Your task to perform on an android device: Go to accessibility settings Image 0: 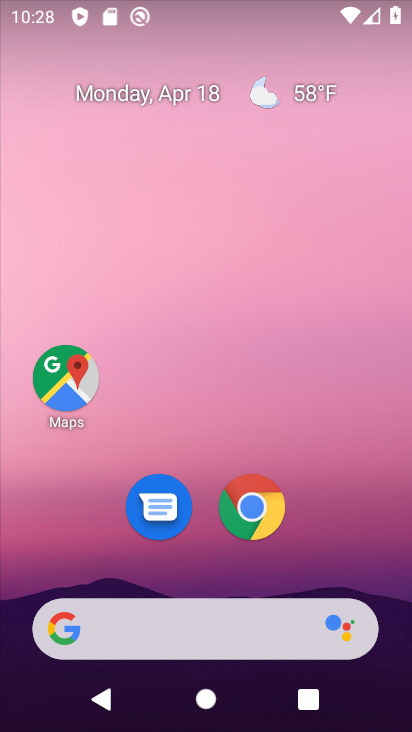
Step 0: drag from (245, 13) to (227, 557)
Your task to perform on an android device: Go to accessibility settings Image 1: 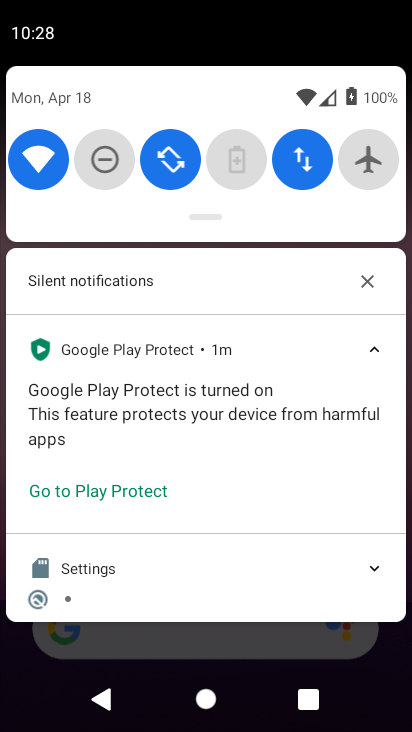
Step 1: drag from (213, 88) to (259, 449)
Your task to perform on an android device: Go to accessibility settings Image 2: 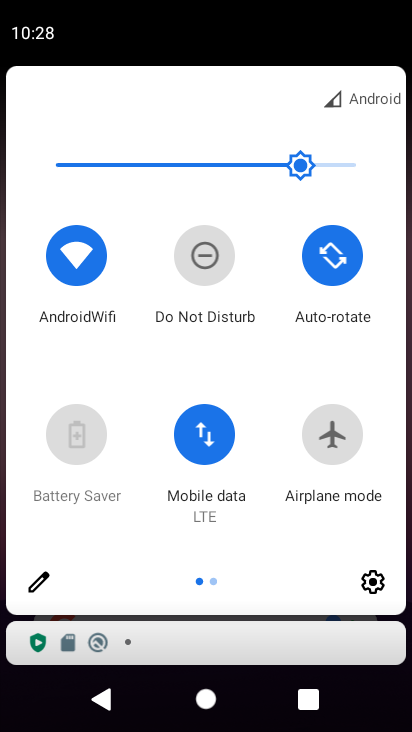
Step 2: click (371, 578)
Your task to perform on an android device: Go to accessibility settings Image 3: 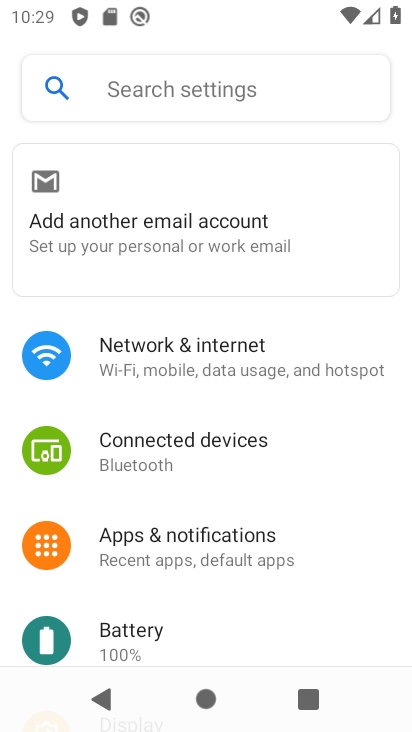
Step 3: drag from (191, 575) to (196, 24)
Your task to perform on an android device: Go to accessibility settings Image 4: 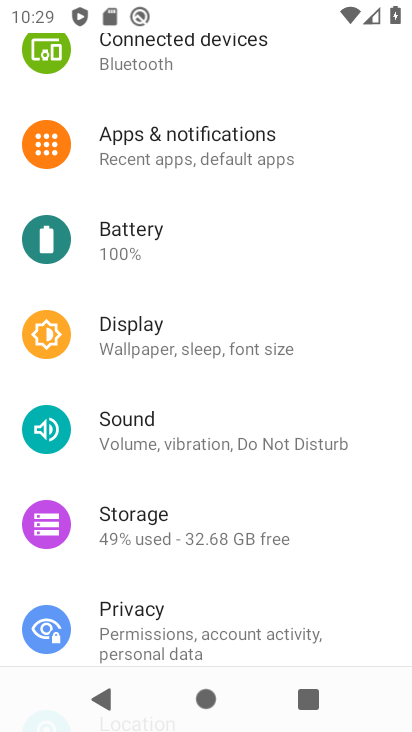
Step 4: click (140, 683)
Your task to perform on an android device: Go to accessibility settings Image 5: 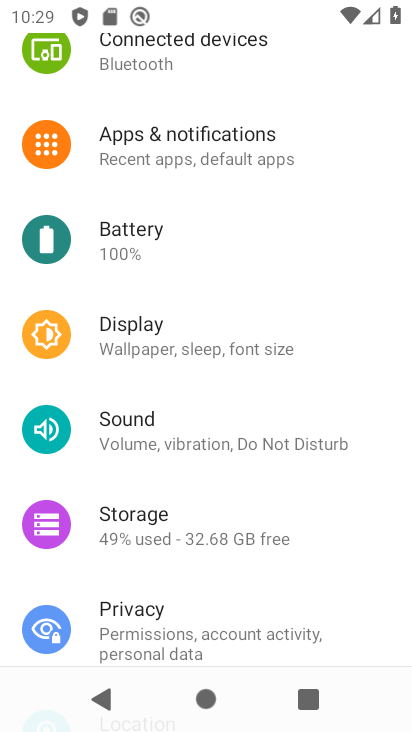
Step 5: drag from (161, 648) to (206, 186)
Your task to perform on an android device: Go to accessibility settings Image 6: 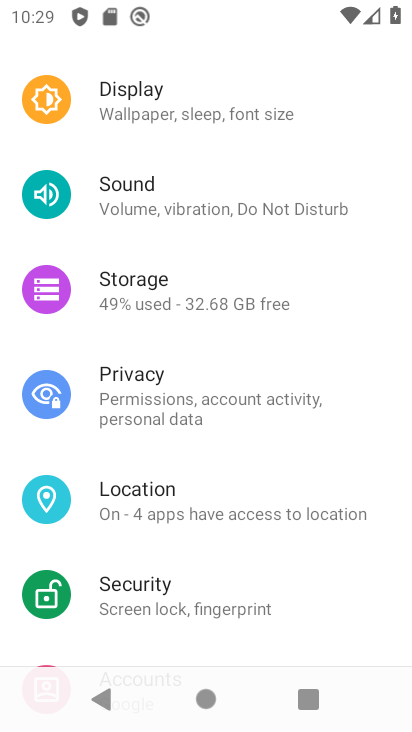
Step 6: drag from (150, 555) to (182, 67)
Your task to perform on an android device: Go to accessibility settings Image 7: 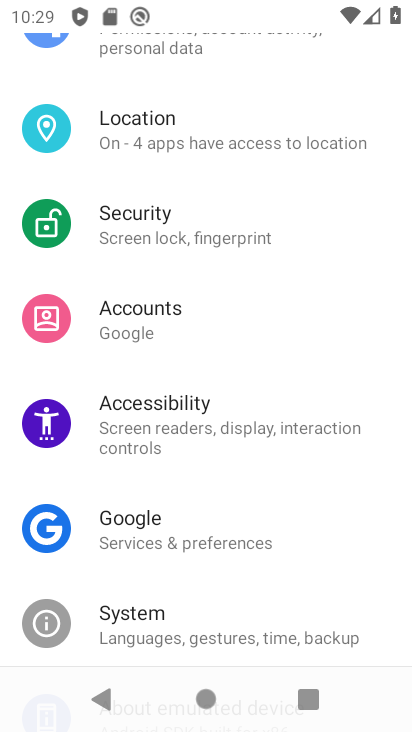
Step 7: click (169, 418)
Your task to perform on an android device: Go to accessibility settings Image 8: 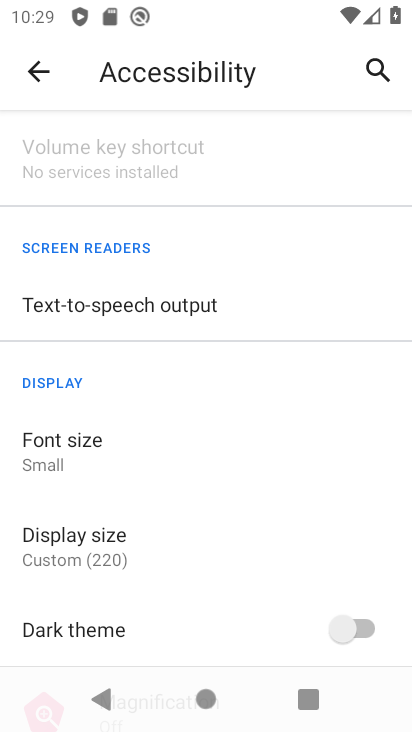
Step 8: task complete